Your task to perform on an android device: Open Google Chrome and open the bookmarks view Image 0: 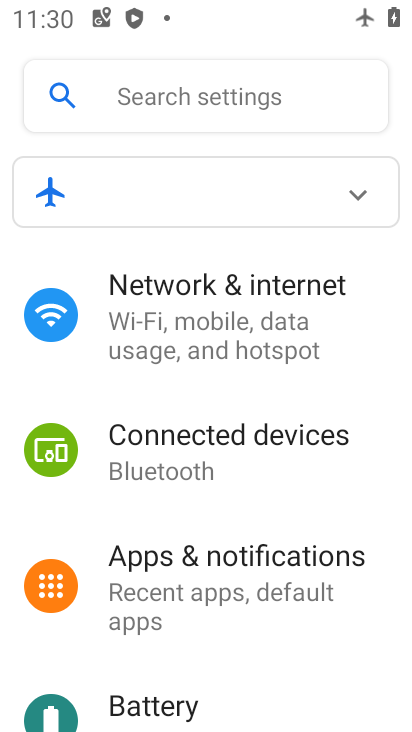
Step 0: press home button
Your task to perform on an android device: Open Google Chrome and open the bookmarks view Image 1: 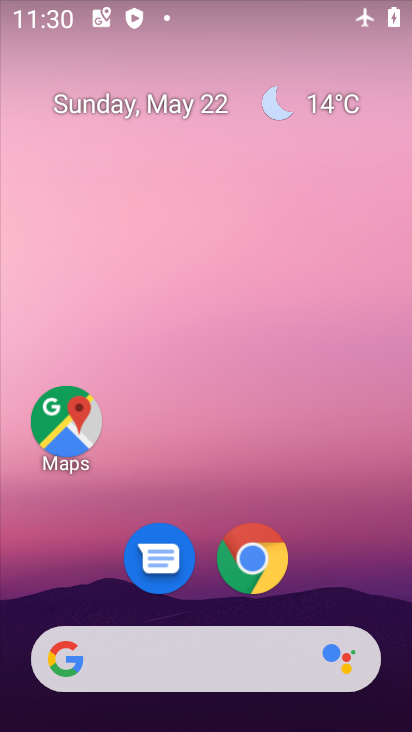
Step 1: click (258, 559)
Your task to perform on an android device: Open Google Chrome and open the bookmarks view Image 2: 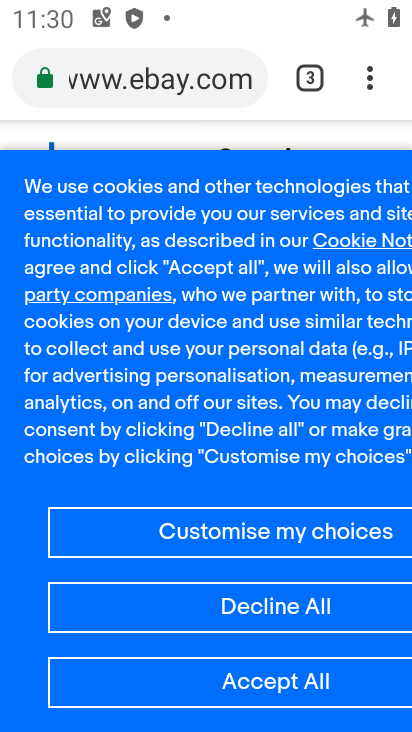
Step 2: click (371, 83)
Your task to perform on an android device: Open Google Chrome and open the bookmarks view Image 3: 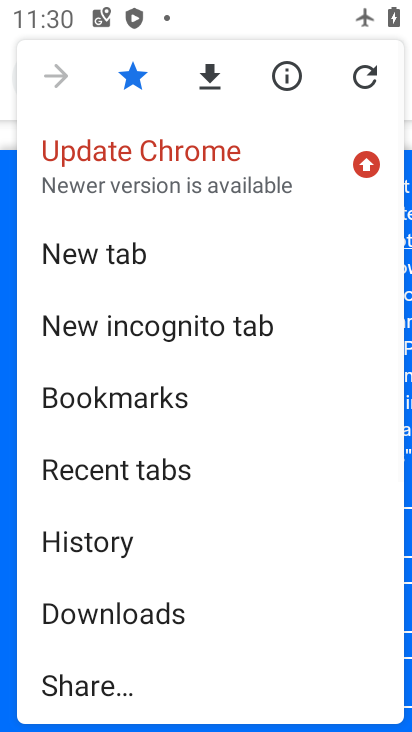
Step 3: click (94, 402)
Your task to perform on an android device: Open Google Chrome and open the bookmarks view Image 4: 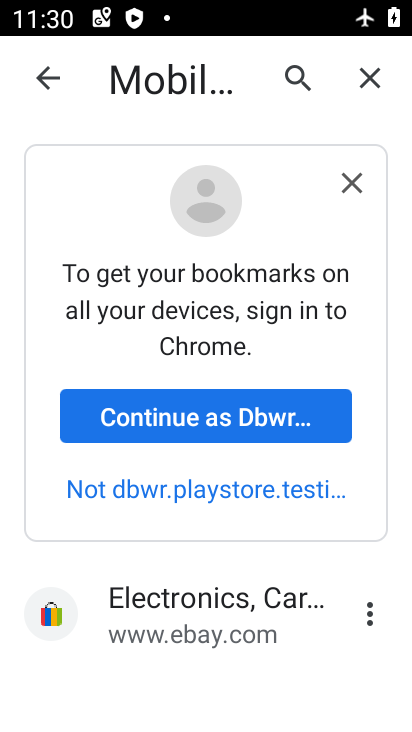
Step 4: click (208, 423)
Your task to perform on an android device: Open Google Chrome and open the bookmarks view Image 5: 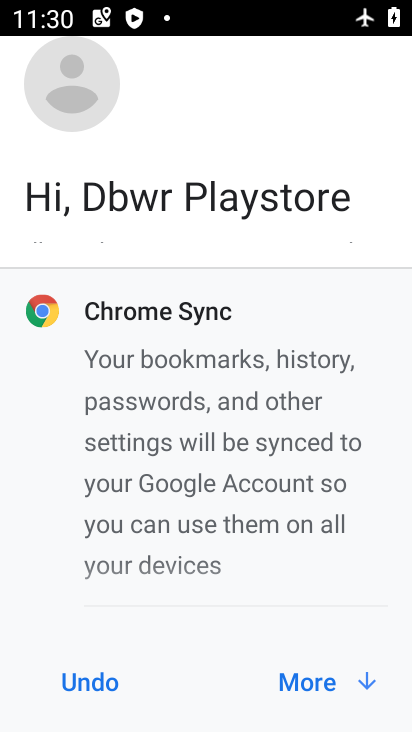
Step 5: drag from (225, 549) to (258, 285)
Your task to perform on an android device: Open Google Chrome and open the bookmarks view Image 6: 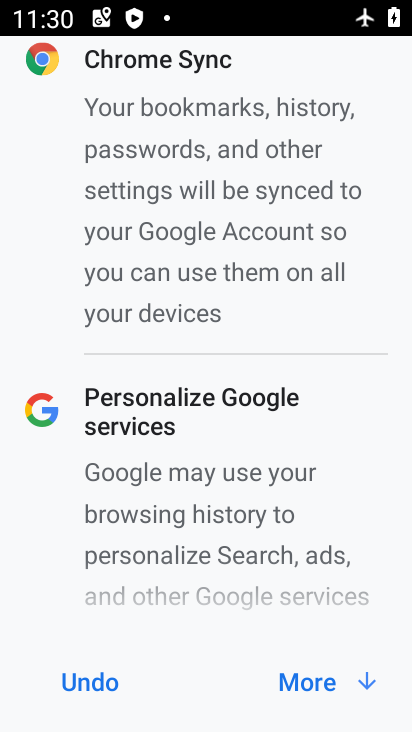
Step 6: click (317, 688)
Your task to perform on an android device: Open Google Chrome and open the bookmarks view Image 7: 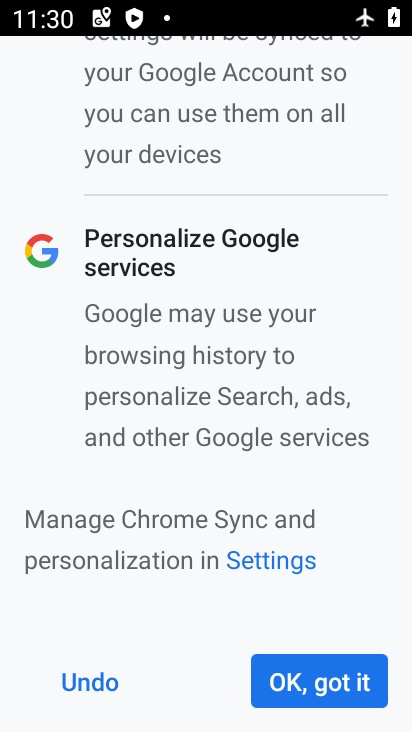
Step 7: click (341, 697)
Your task to perform on an android device: Open Google Chrome and open the bookmarks view Image 8: 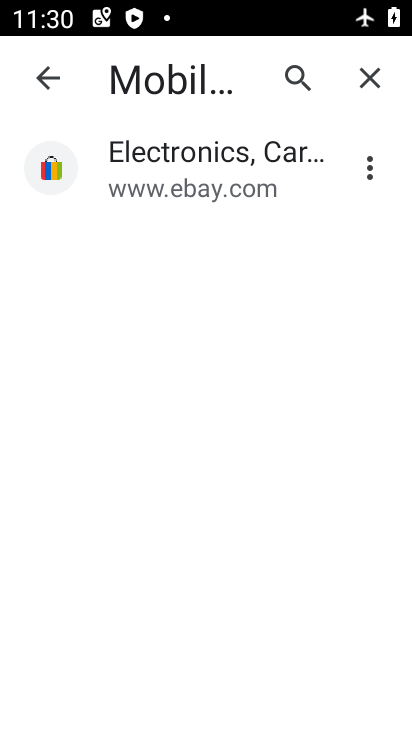
Step 8: task complete